Your task to perform on an android device: toggle show notifications on the lock screen Image 0: 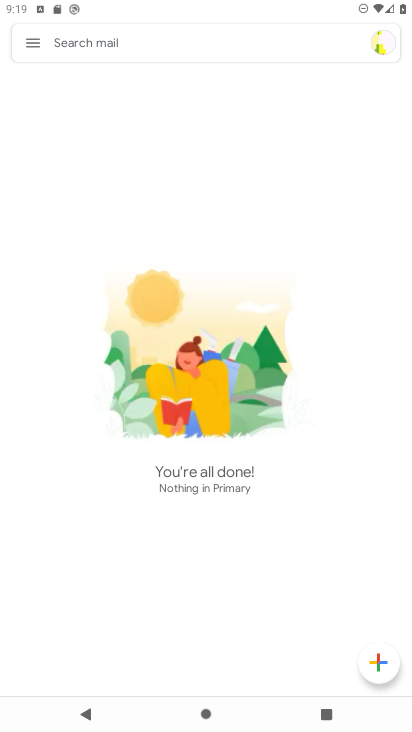
Step 0: press home button
Your task to perform on an android device: toggle show notifications on the lock screen Image 1: 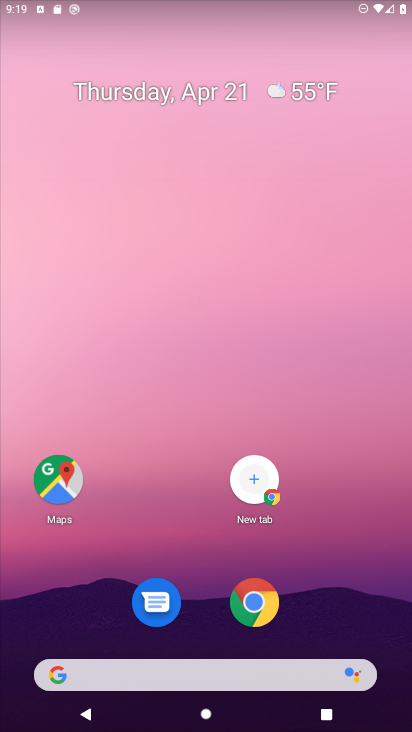
Step 1: drag from (184, 648) to (153, 41)
Your task to perform on an android device: toggle show notifications on the lock screen Image 2: 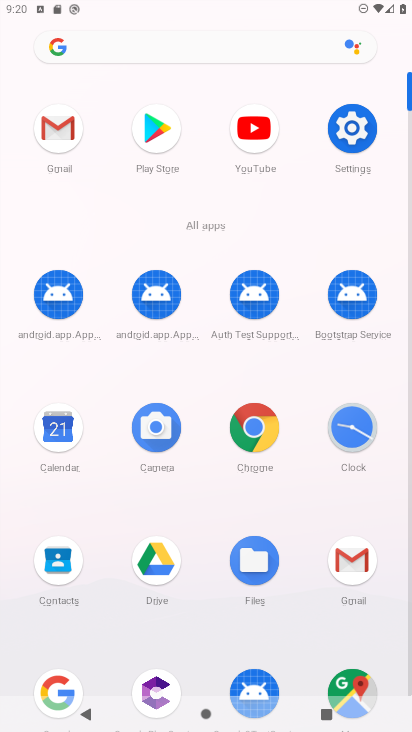
Step 2: click (335, 139)
Your task to perform on an android device: toggle show notifications on the lock screen Image 3: 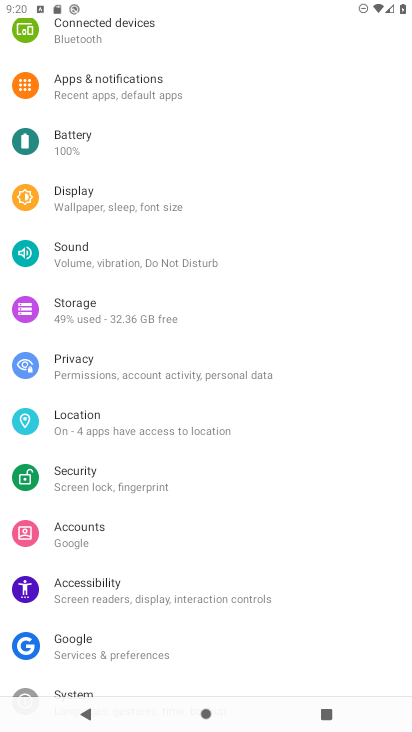
Step 3: click (168, 100)
Your task to perform on an android device: toggle show notifications on the lock screen Image 4: 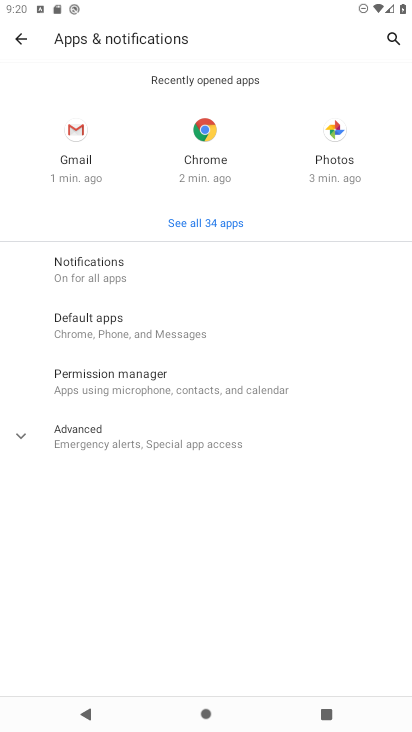
Step 4: click (131, 283)
Your task to perform on an android device: toggle show notifications on the lock screen Image 5: 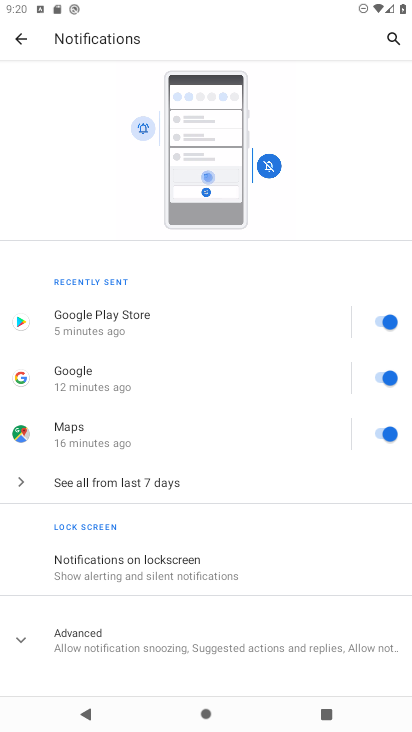
Step 5: click (268, 583)
Your task to perform on an android device: toggle show notifications on the lock screen Image 6: 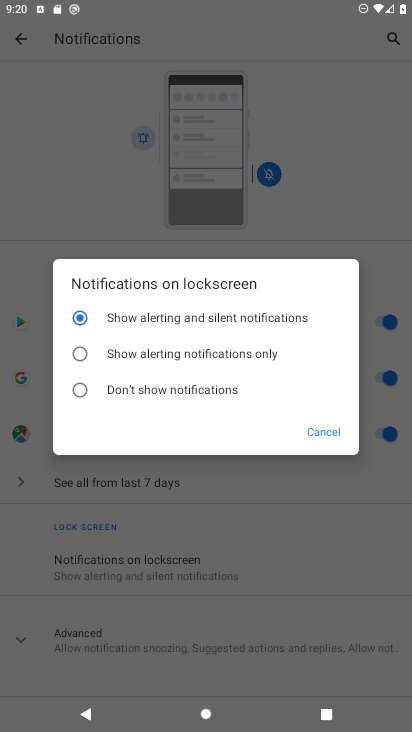
Step 6: task complete